Your task to perform on an android device: change the upload size in google photos Image 0: 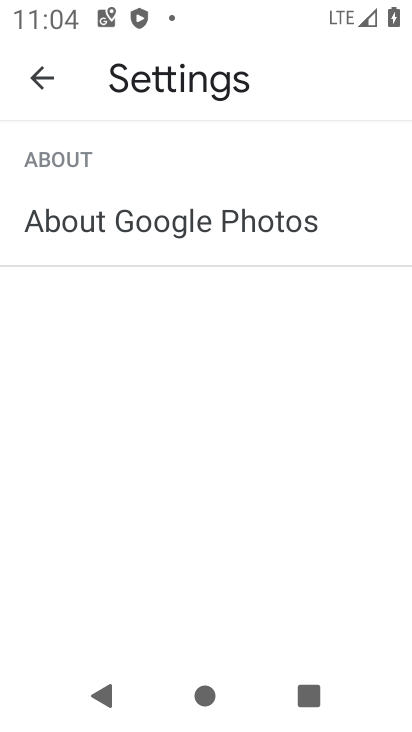
Step 0: press back button
Your task to perform on an android device: change the upload size in google photos Image 1: 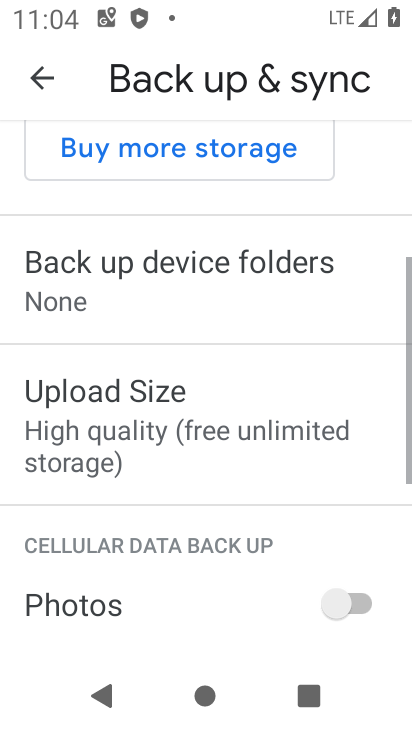
Step 1: click (157, 414)
Your task to perform on an android device: change the upload size in google photos Image 2: 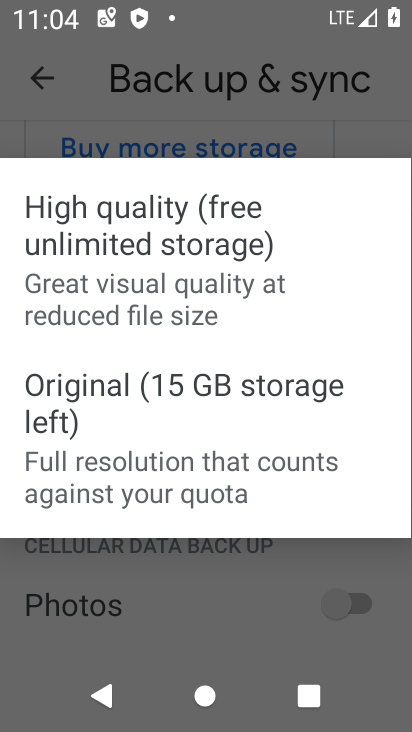
Step 2: click (157, 436)
Your task to perform on an android device: change the upload size in google photos Image 3: 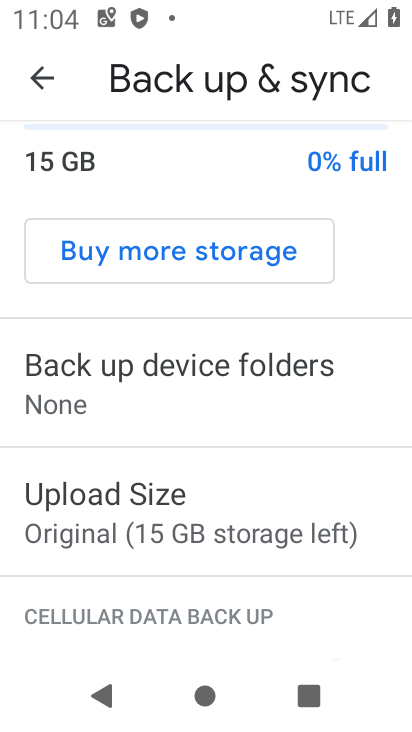
Step 3: task complete